Your task to perform on an android device: Open calendar and show me the second week of next month Image 0: 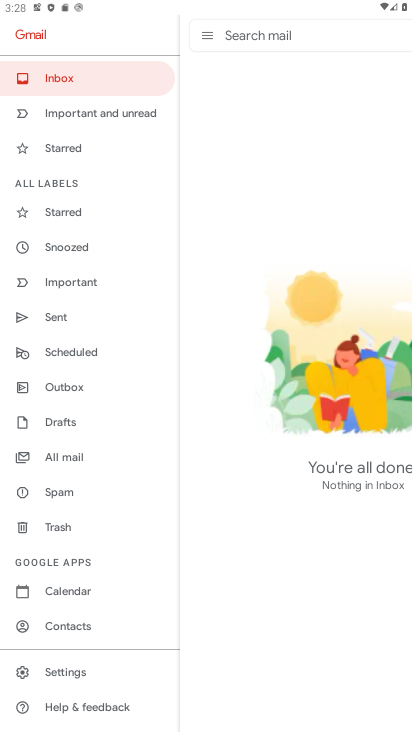
Step 0: press home button
Your task to perform on an android device: Open calendar and show me the second week of next month Image 1: 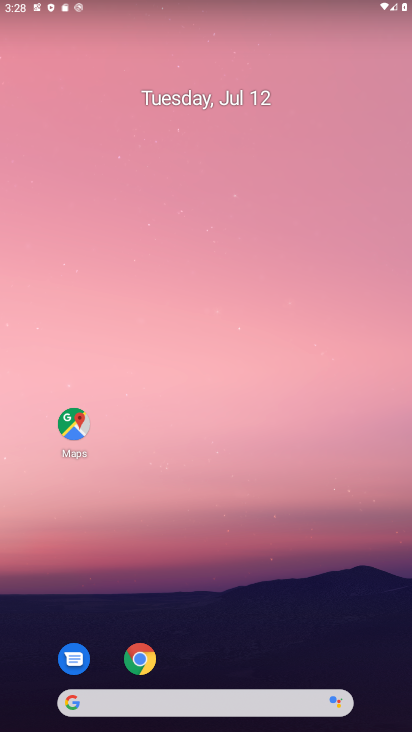
Step 1: drag from (211, 731) to (203, 123)
Your task to perform on an android device: Open calendar and show me the second week of next month Image 2: 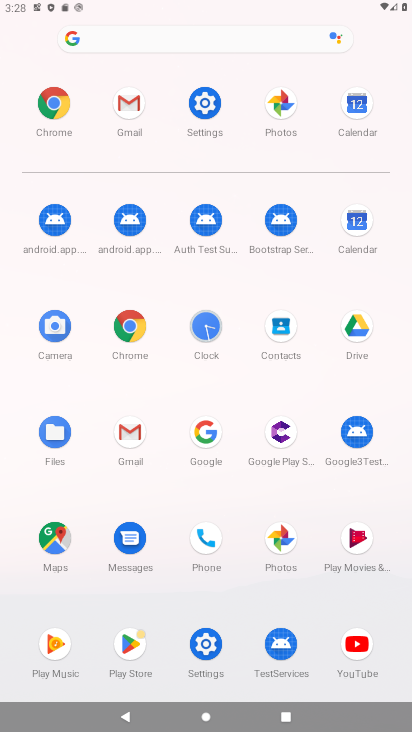
Step 2: click (353, 226)
Your task to perform on an android device: Open calendar and show me the second week of next month Image 3: 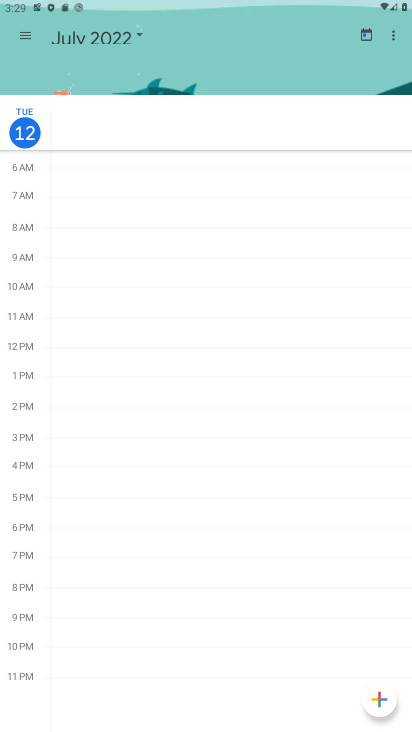
Step 3: click (132, 26)
Your task to perform on an android device: Open calendar and show me the second week of next month Image 4: 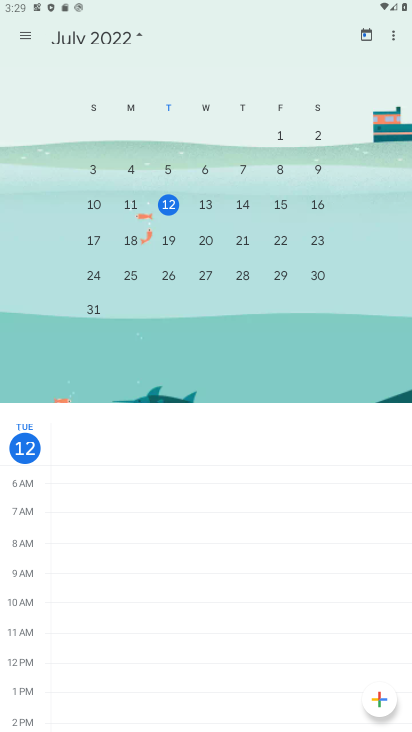
Step 4: drag from (300, 227) to (252, 216)
Your task to perform on an android device: Open calendar and show me the second week of next month Image 5: 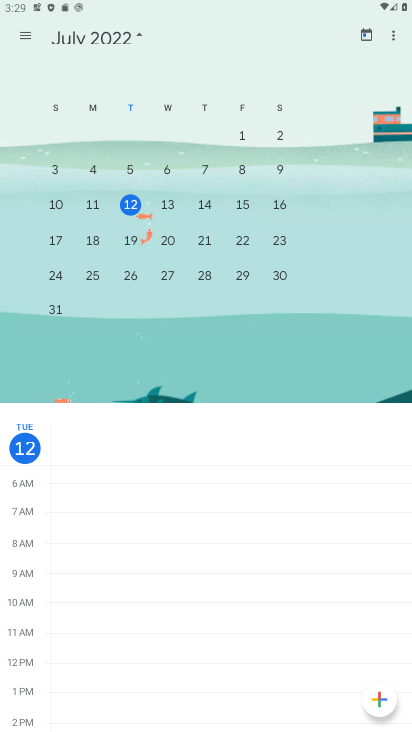
Step 5: drag from (38, 212) to (2, 227)
Your task to perform on an android device: Open calendar and show me the second week of next month Image 6: 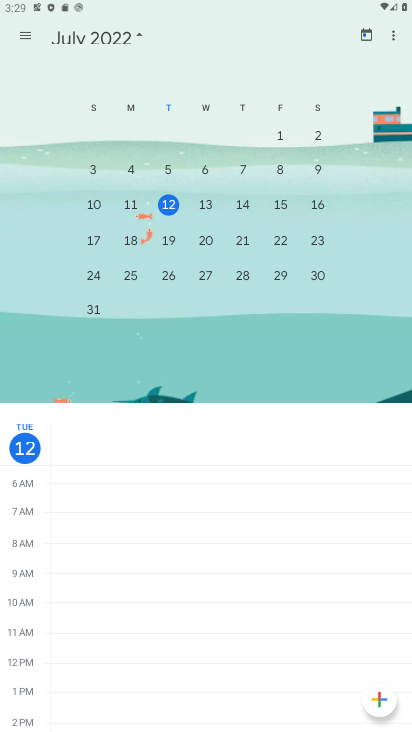
Step 6: drag from (366, 220) to (0, 254)
Your task to perform on an android device: Open calendar and show me the second week of next month Image 7: 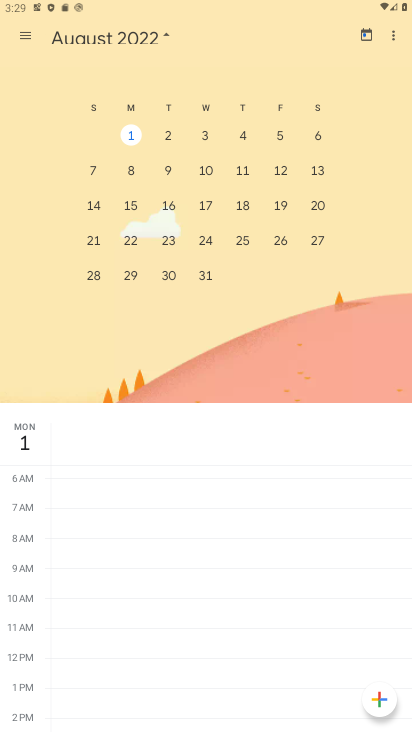
Step 7: click (130, 171)
Your task to perform on an android device: Open calendar and show me the second week of next month Image 8: 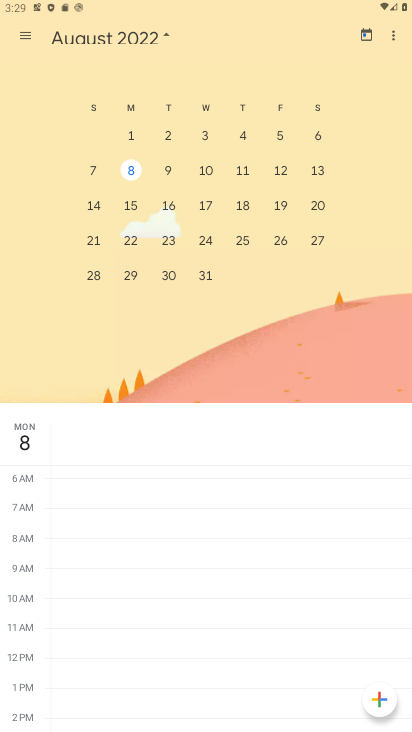
Step 8: click (24, 37)
Your task to perform on an android device: Open calendar and show me the second week of next month Image 9: 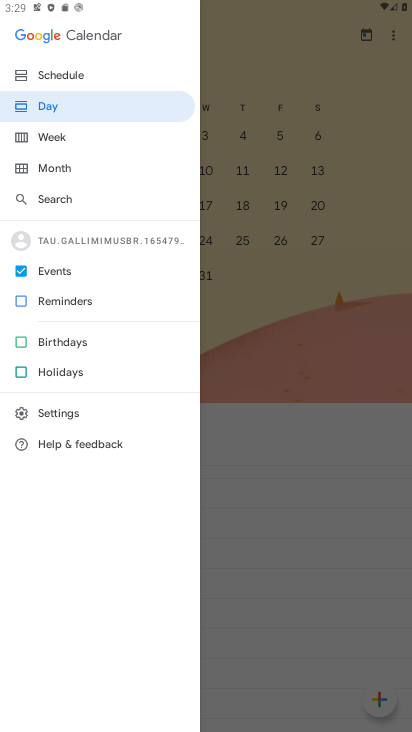
Step 9: click (53, 137)
Your task to perform on an android device: Open calendar and show me the second week of next month Image 10: 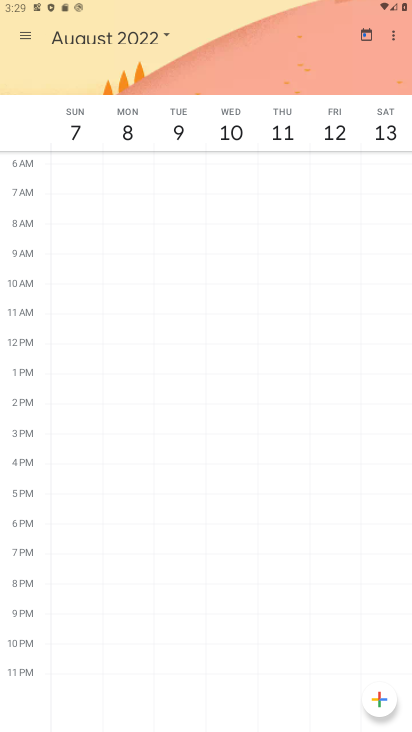
Step 10: task complete